Your task to perform on an android device: check android version Image 0: 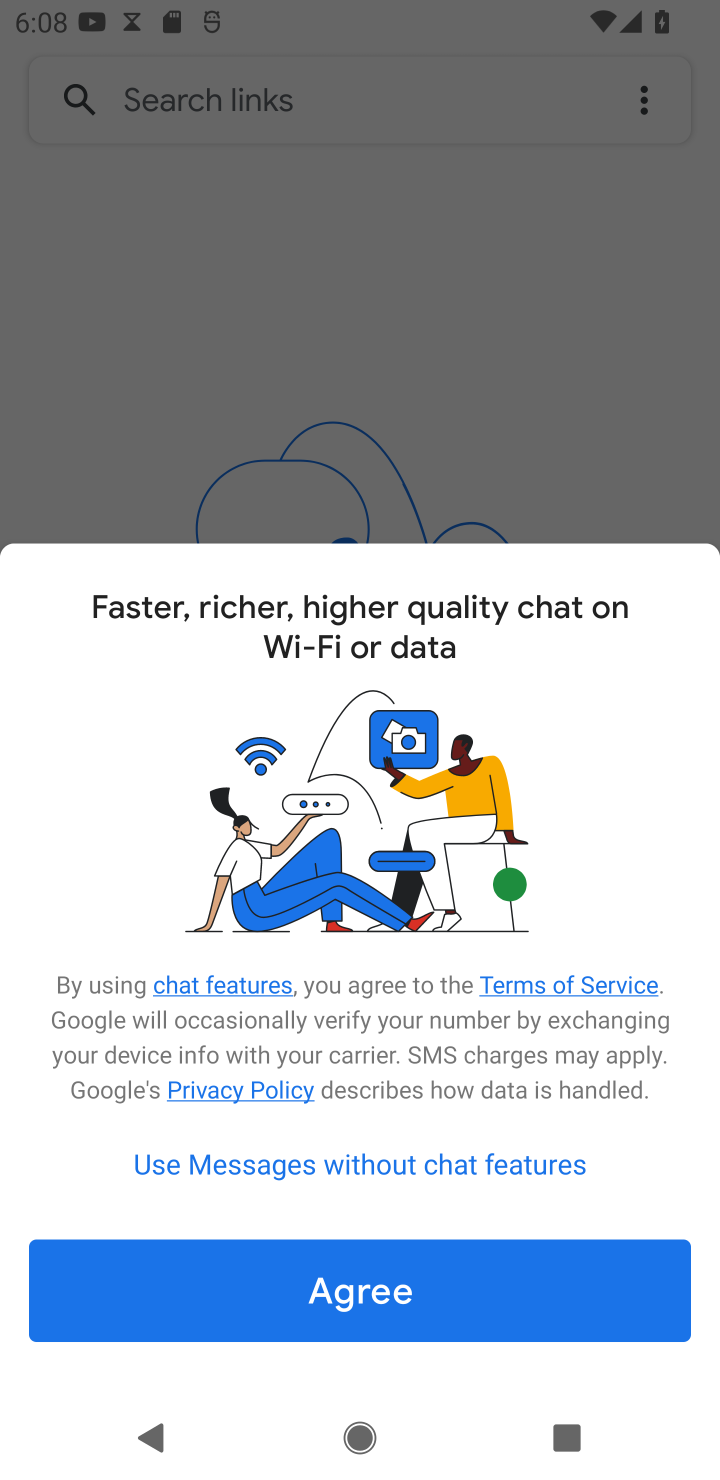
Step 0: press home button
Your task to perform on an android device: check android version Image 1: 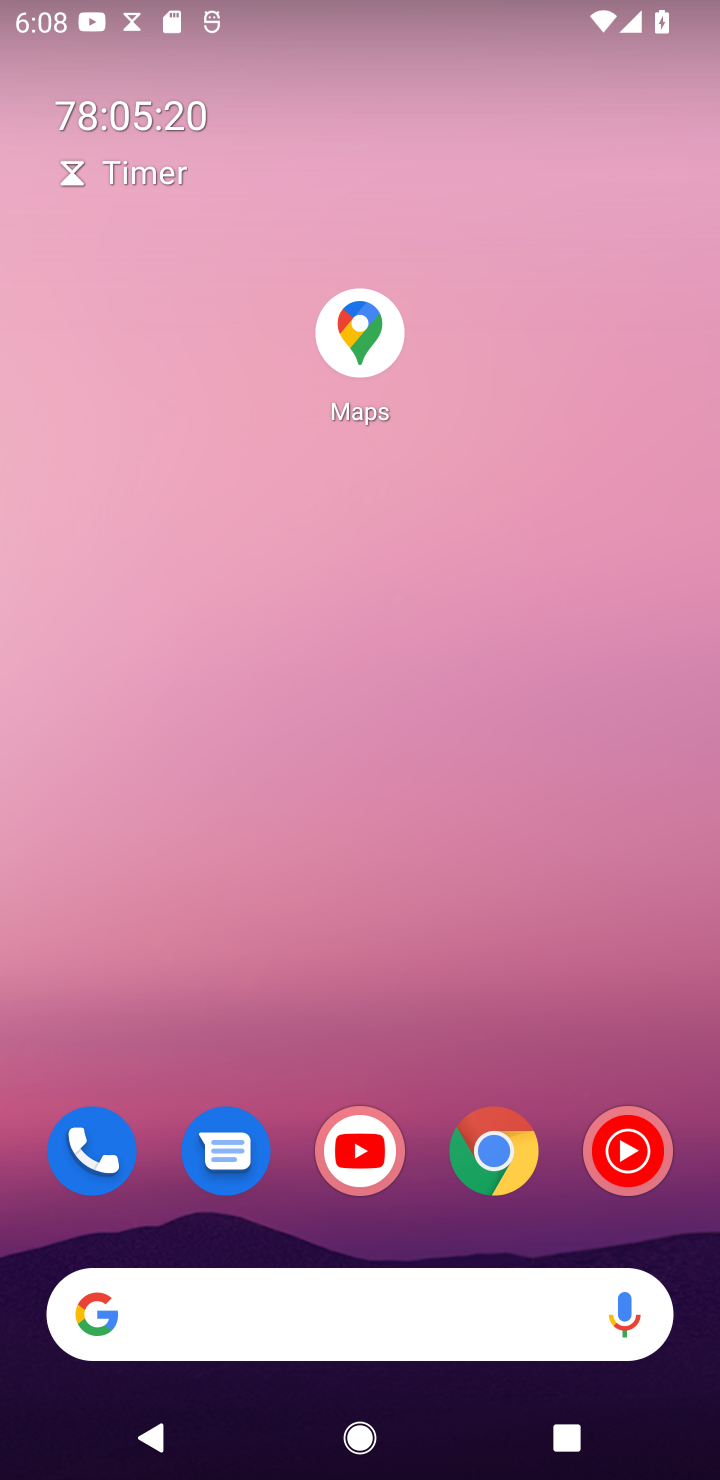
Step 1: drag from (303, 1128) to (334, 356)
Your task to perform on an android device: check android version Image 2: 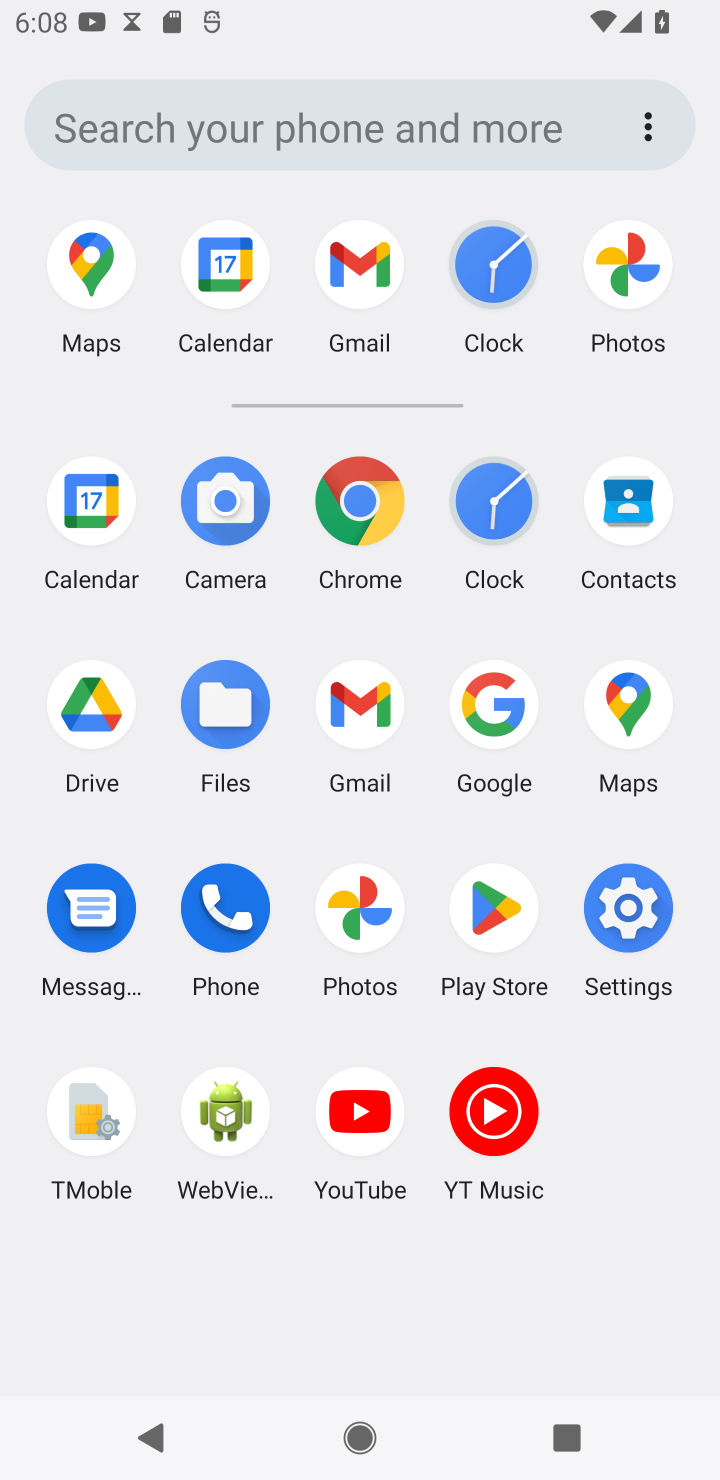
Step 2: click (620, 923)
Your task to perform on an android device: check android version Image 3: 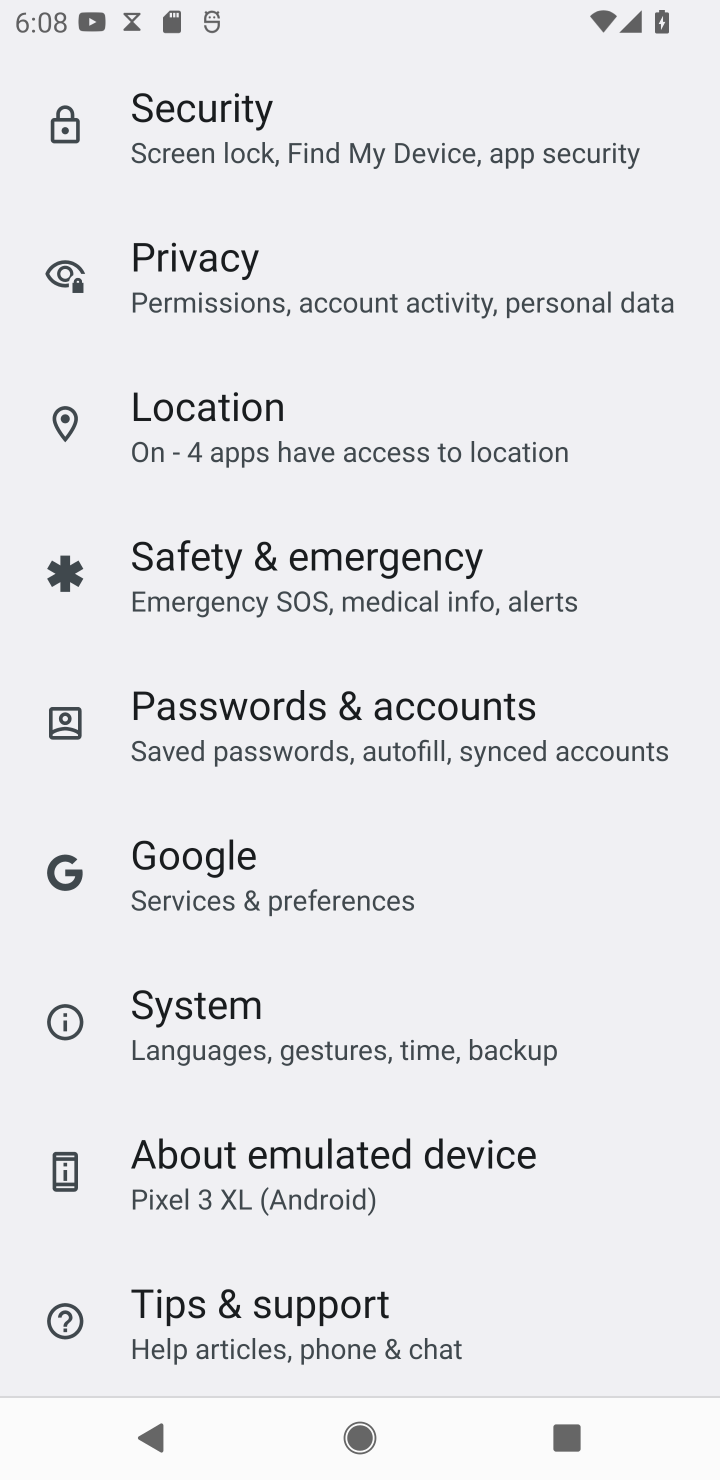
Step 3: drag from (413, 1324) to (478, 250)
Your task to perform on an android device: check android version Image 4: 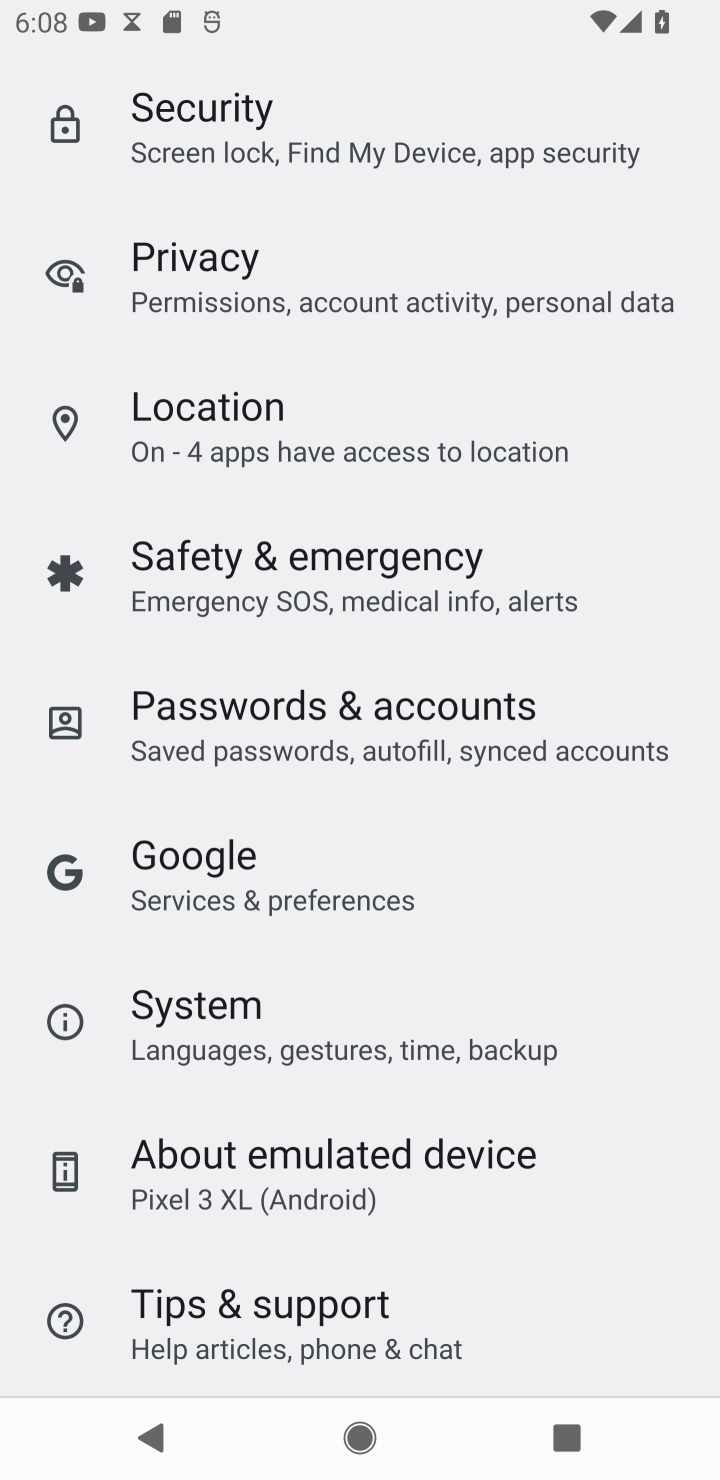
Step 4: drag from (196, 1287) to (365, 150)
Your task to perform on an android device: check android version Image 5: 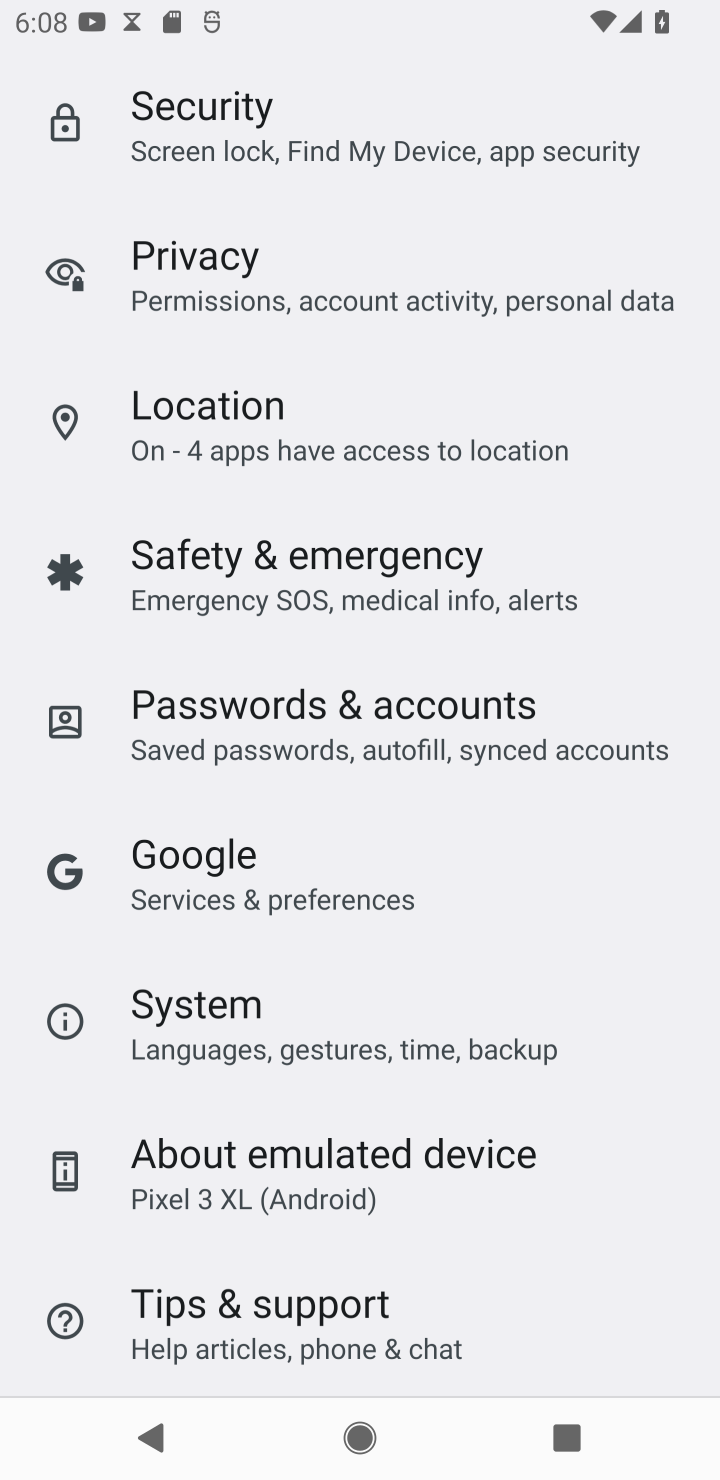
Step 5: click (205, 1133)
Your task to perform on an android device: check android version Image 6: 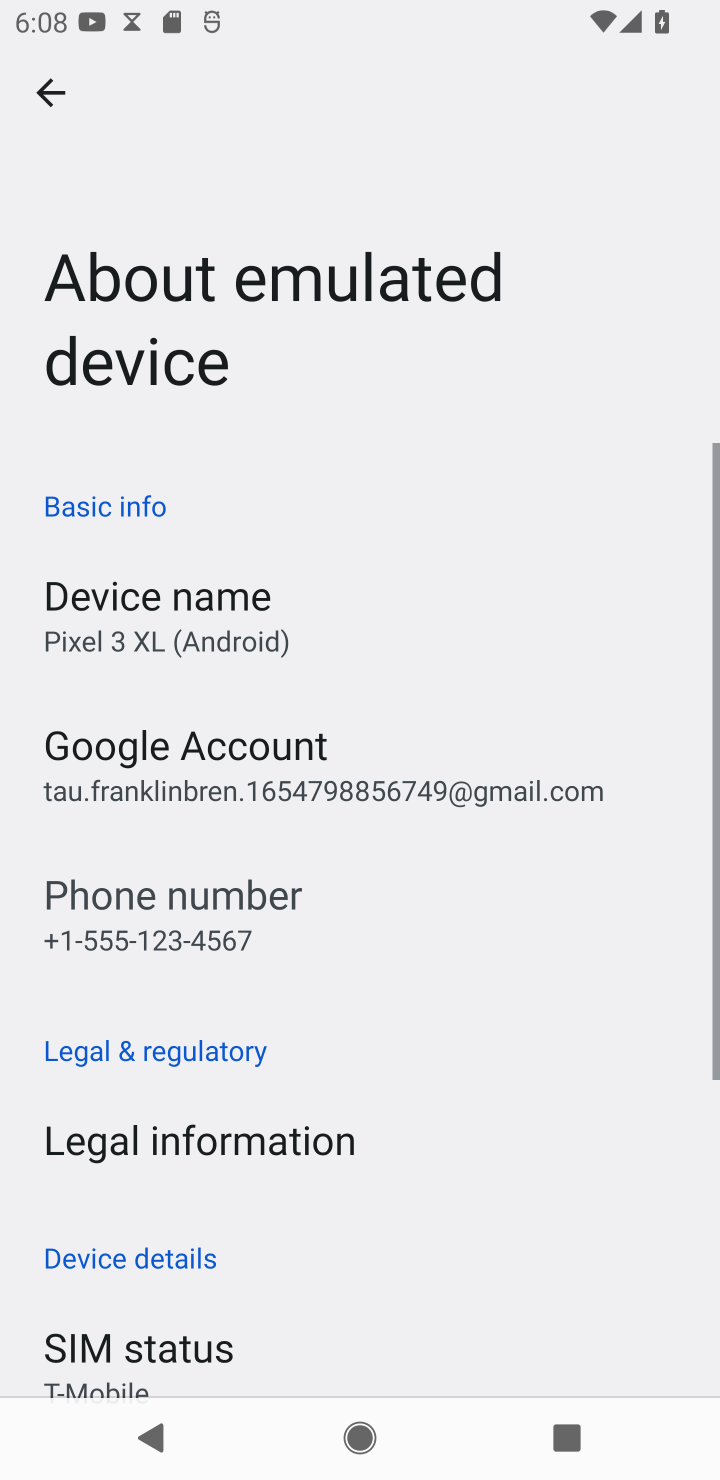
Step 6: drag from (269, 1241) to (395, 160)
Your task to perform on an android device: check android version Image 7: 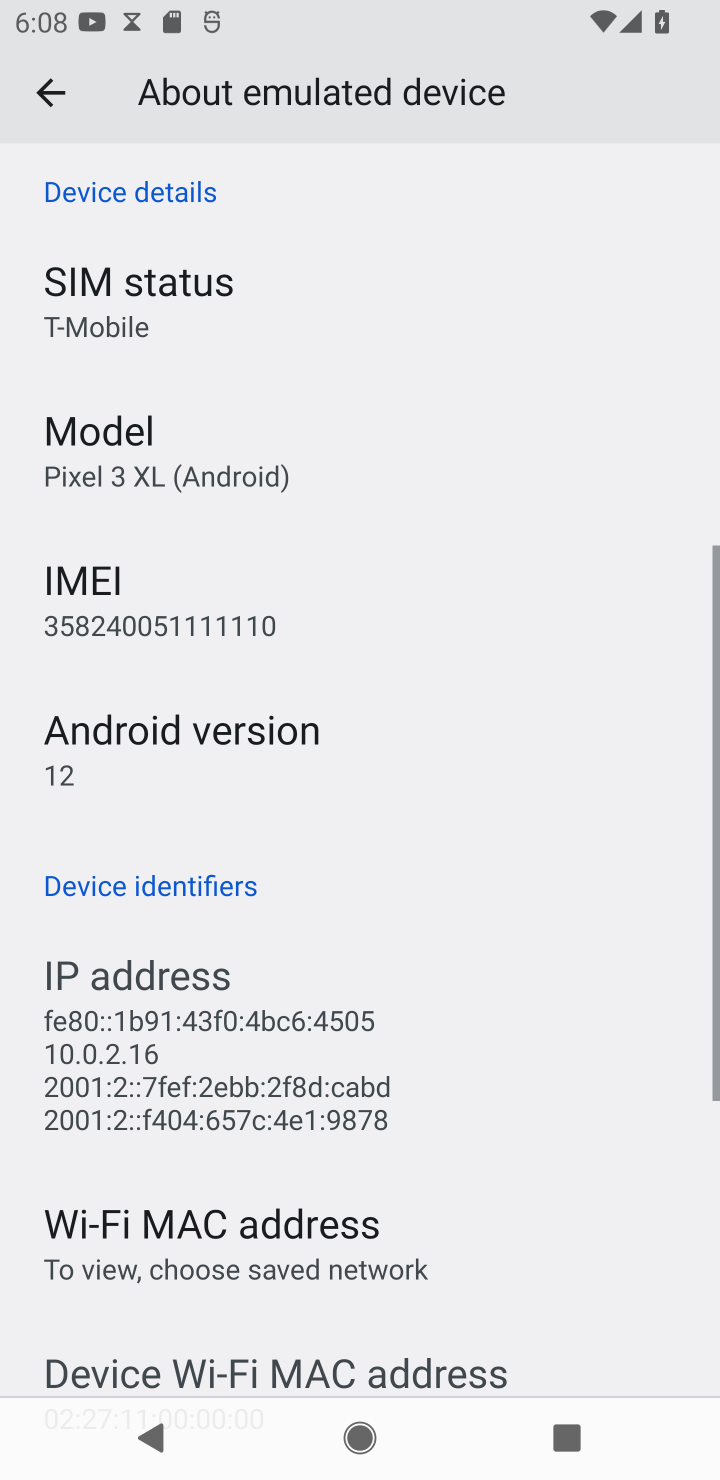
Step 7: drag from (157, 946) to (217, 723)
Your task to perform on an android device: check android version Image 8: 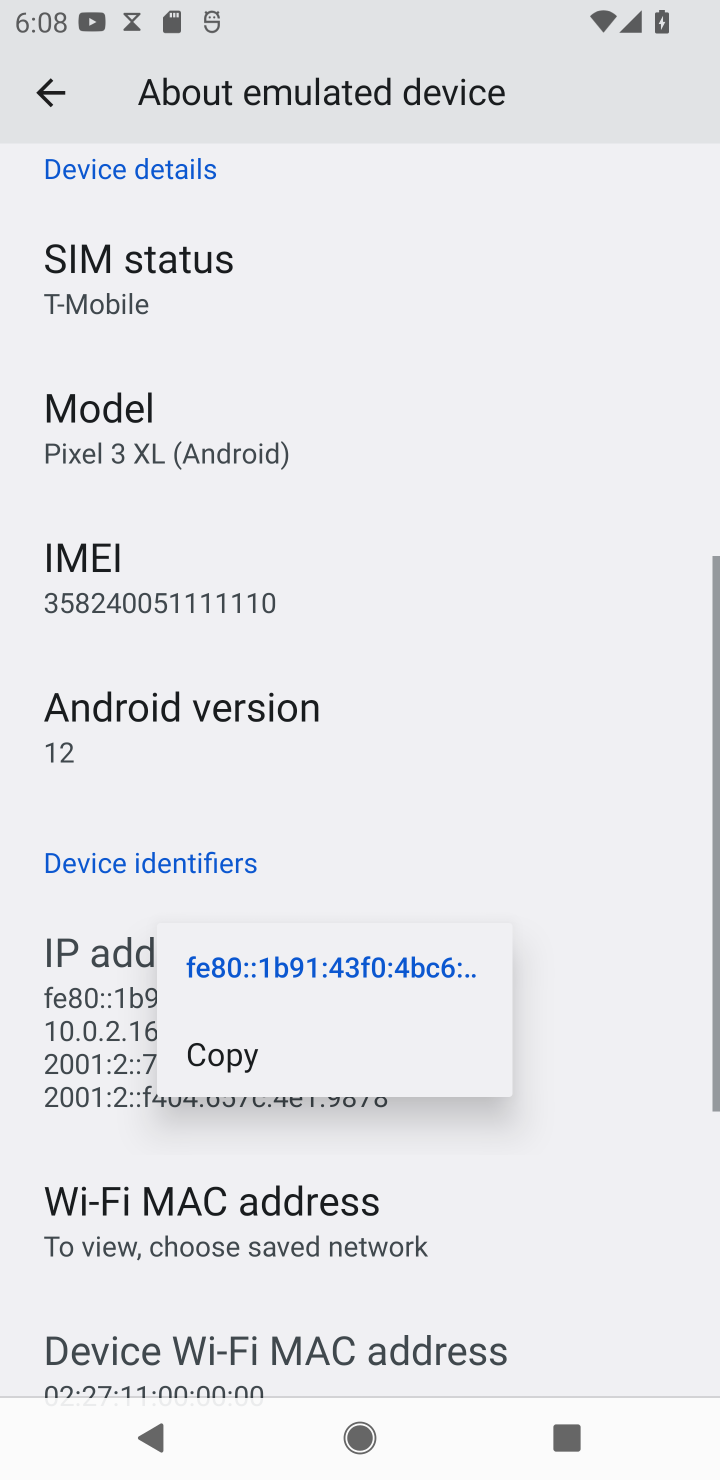
Step 8: click (217, 723)
Your task to perform on an android device: check android version Image 9: 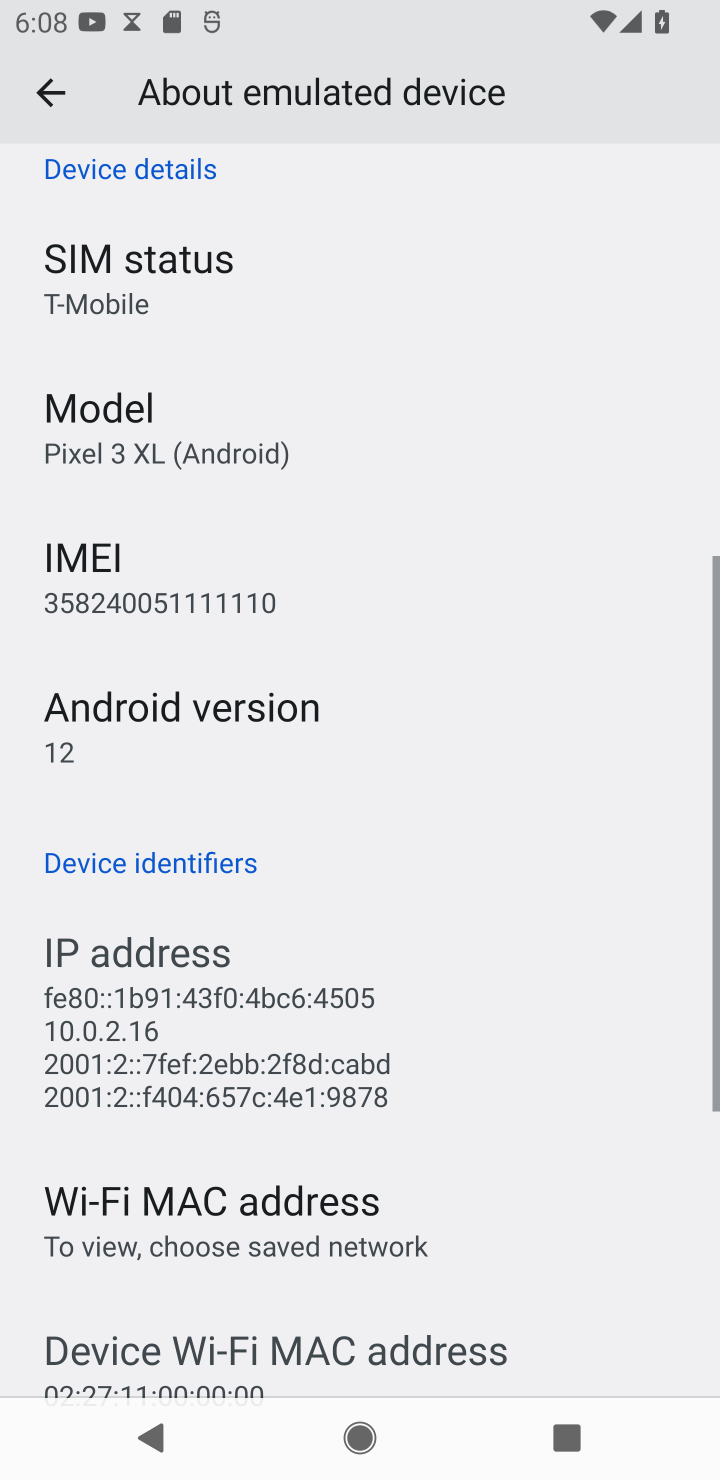
Step 9: click (217, 723)
Your task to perform on an android device: check android version Image 10: 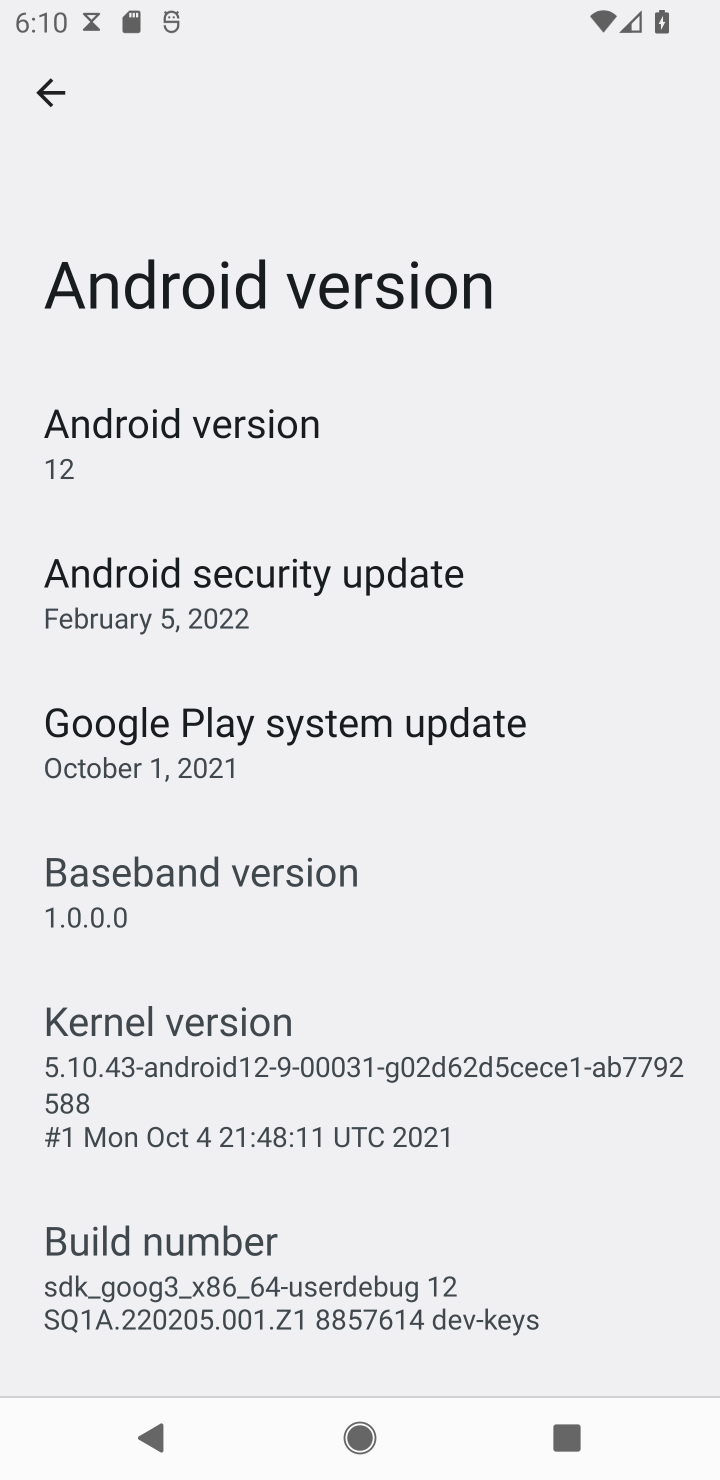
Step 10: task complete